Your task to perform on an android device: Go to location settings Image 0: 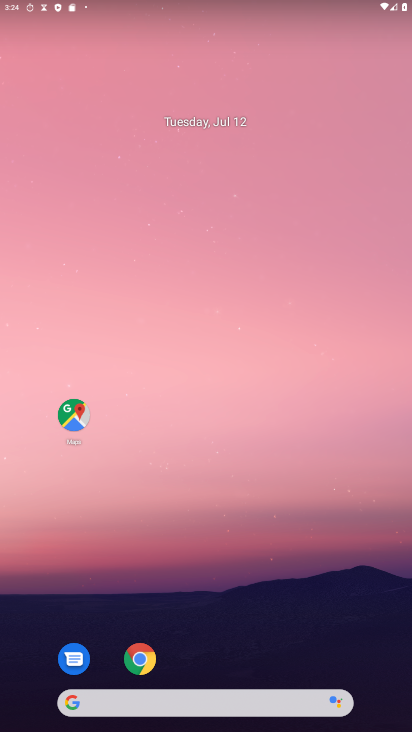
Step 0: drag from (298, 645) to (233, 14)
Your task to perform on an android device: Go to location settings Image 1: 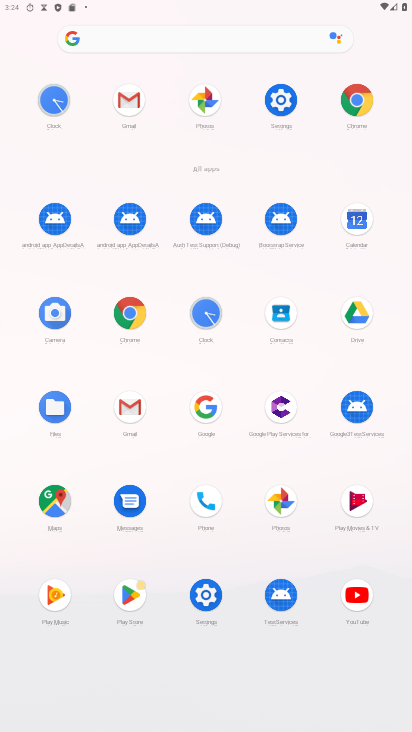
Step 1: click (280, 103)
Your task to perform on an android device: Go to location settings Image 2: 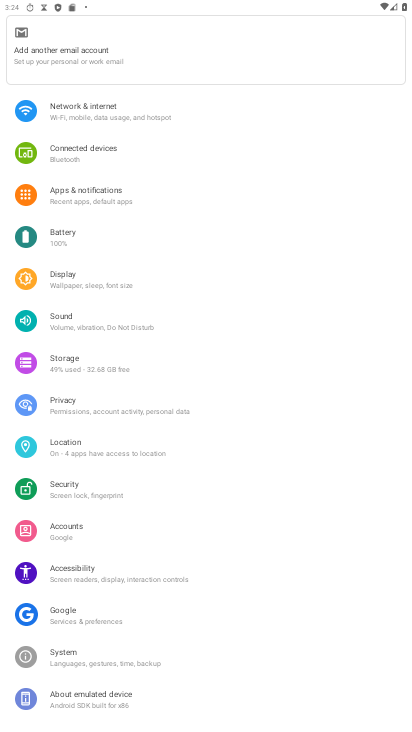
Step 2: click (159, 458)
Your task to perform on an android device: Go to location settings Image 3: 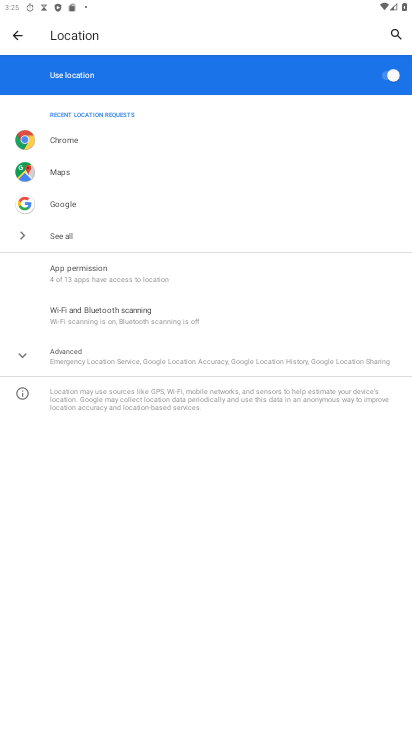
Step 3: task complete